Your task to perform on an android device: open chrome and create a bookmark for the current page Image 0: 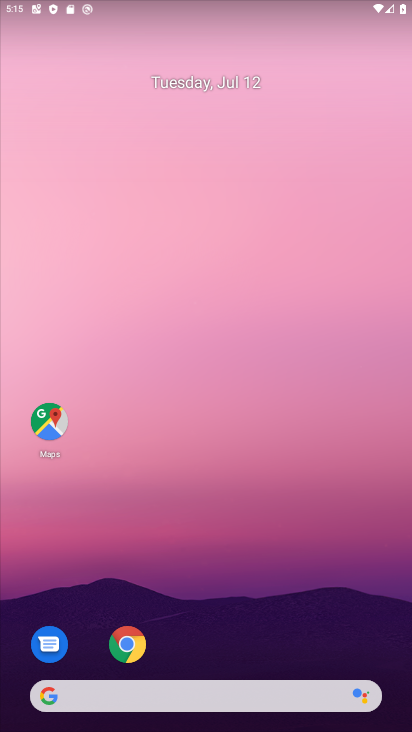
Step 0: click (144, 634)
Your task to perform on an android device: open chrome and create a bookmark for the current page Image 1: 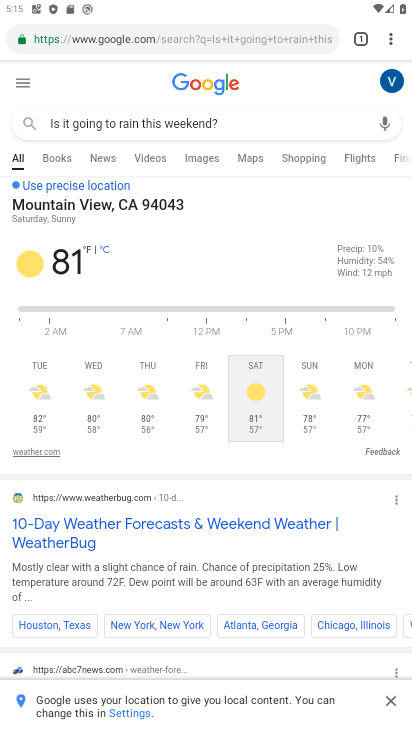
Step 1: click (393, 36)
Your task to perform on an android device: open chrome and create a bookmark for the current page Image 2: 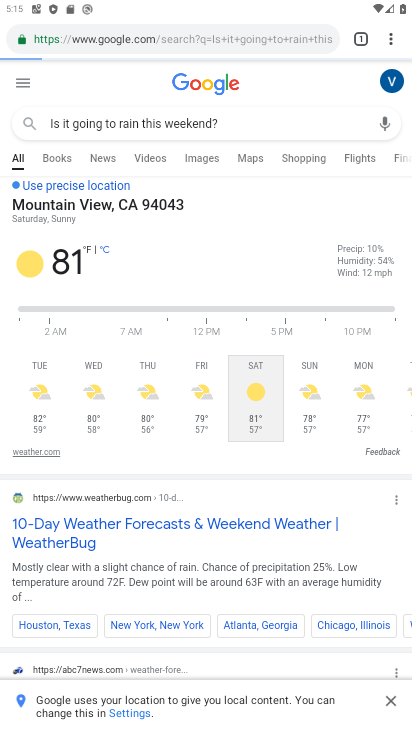
Step 2: click (268, 32)
Your task to perform on an android device: open chrome and create a bookmark for the current page Image 3: 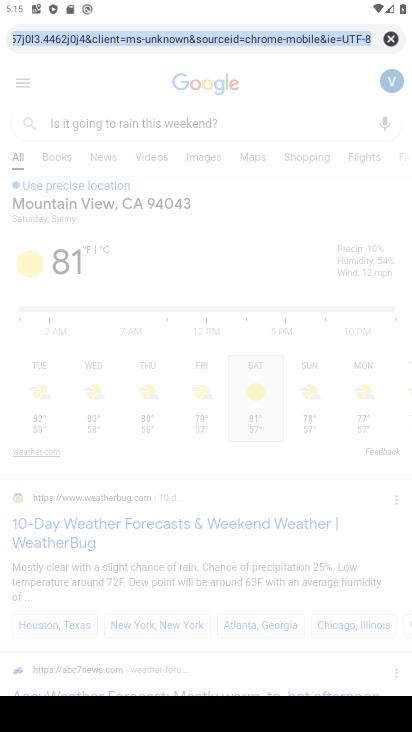
Step 3: click (350, 94)
Your task to perform on an android device: open chrome and create a bookmark for the current page Image 4: 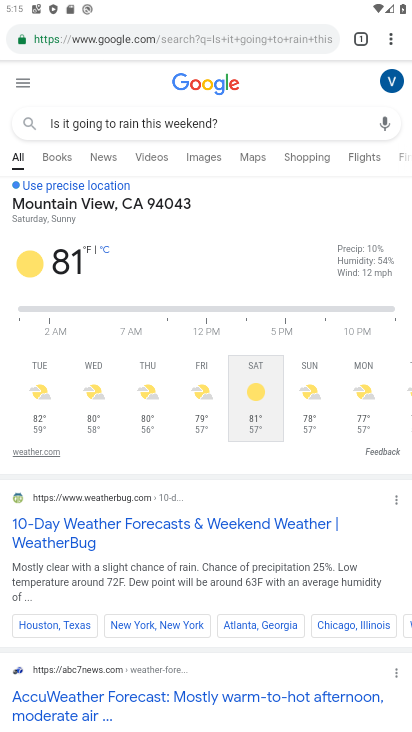
Step 4: task complete